Your task to perform on an android device: What is the news today? Image 0: 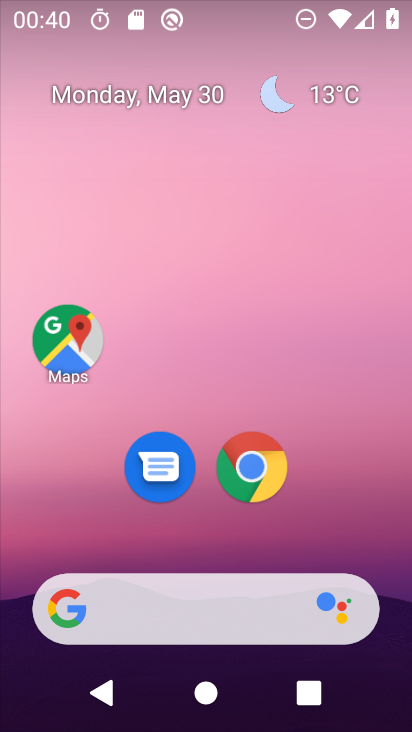
Step 0: drag from (195, 551) to (200, 179)
Your task to perform on an android device: What is the news today? Image 1: 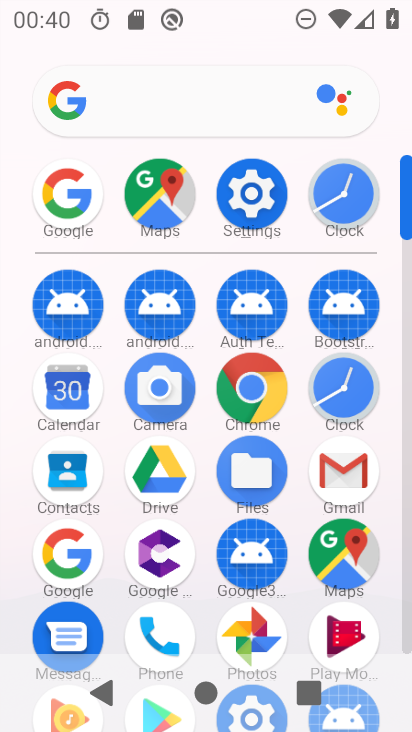
Step 1: click (49, 541)
Your task to perform on an android device: What is the news today? Image 2: 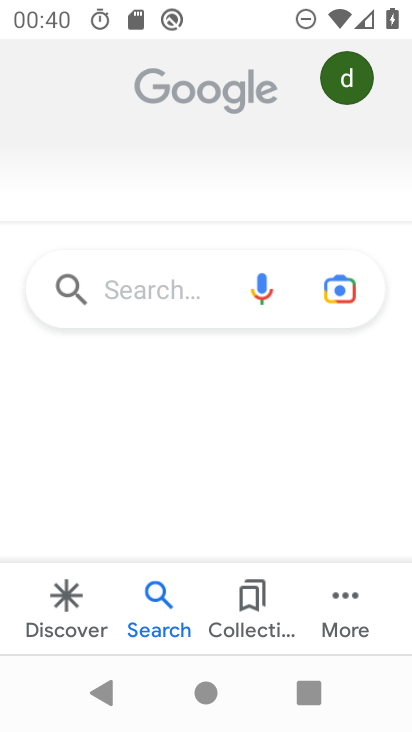
Step 2: click (138, 276)
Your task to perform on an android device: What is the news today? Image 3: 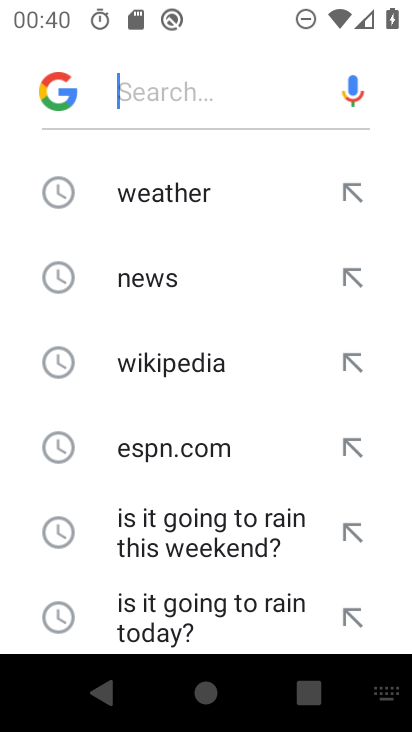
Step 3: click (181, 274)
Your task to perform on an android device: What is the news today? Image 4: 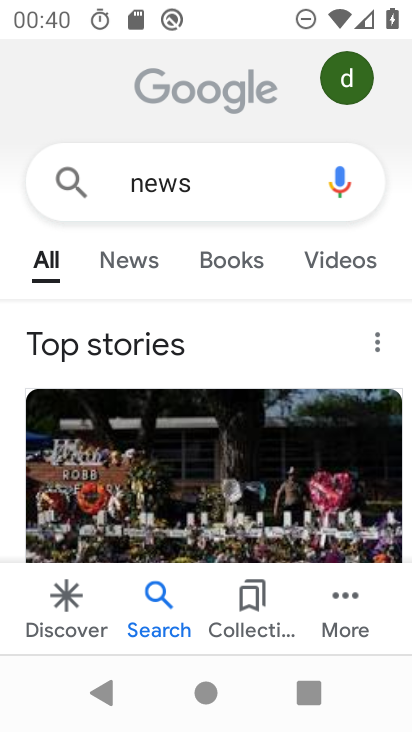
Step 4: drag from (199, 453) to (251, 197)
Your task to perform on an android device: What is the news today? Image 5: 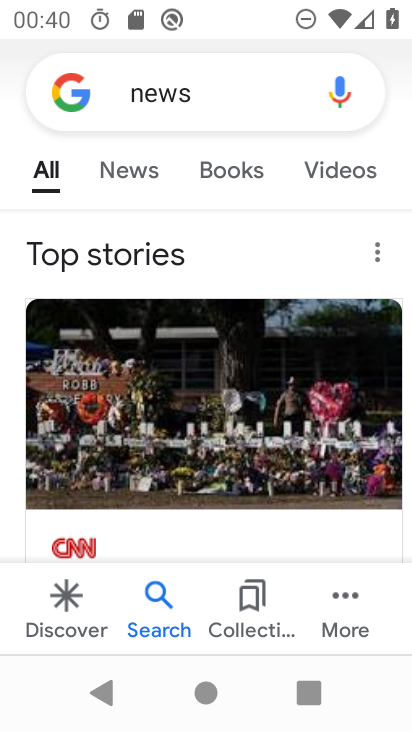
Step 5: click (126, 165)
Your task to perform on an android device: What is the news today? Image 6: 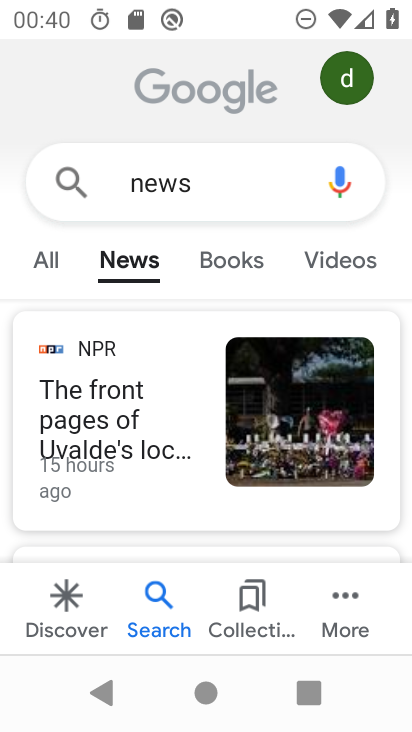
Step 6: task complete